Your task to perform on an android device: toggle location history Image 0: 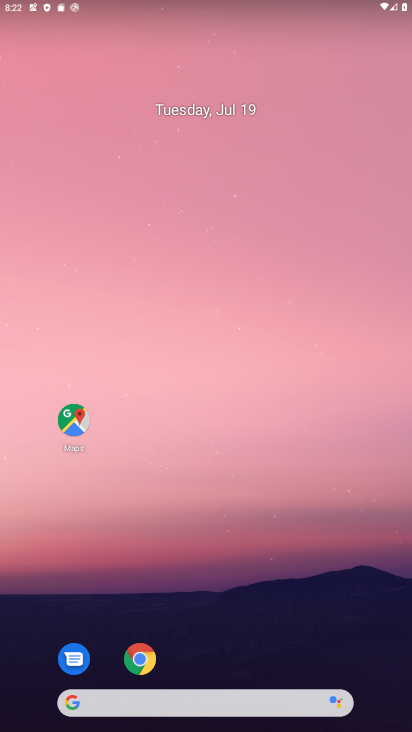
Step 0: drag from (200, 658) to (341, 290)
Your task to perform on an android device: toggle location history Image 1: 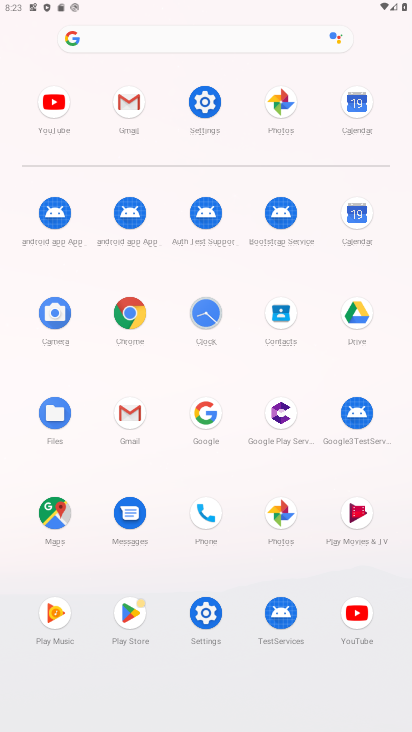
Step 1: click (211, 614)
Your task to perform on an android device: toggle location history Image 2: 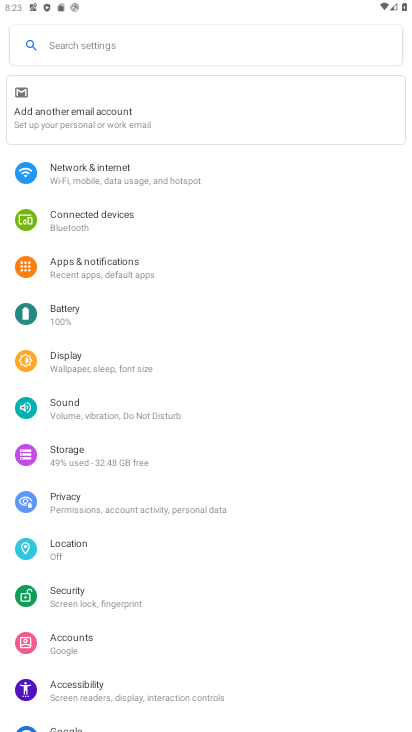
Step 2: click (122, 541)
Your task to perform on an android device: toggle location history Image 3: 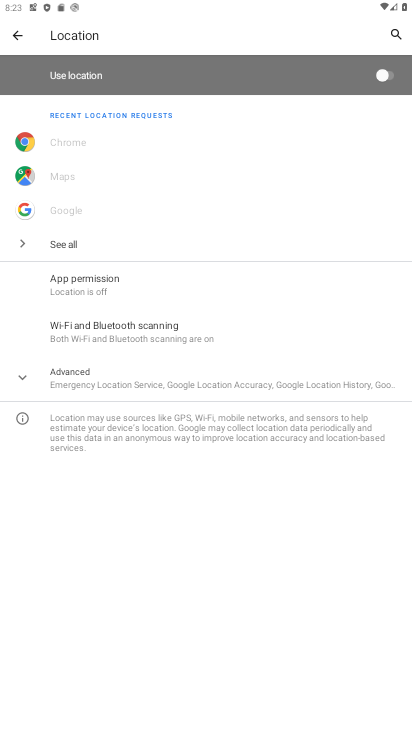
Step 3: click (95, 386)
Your task to perform on an android device: toggle location history Image 4: 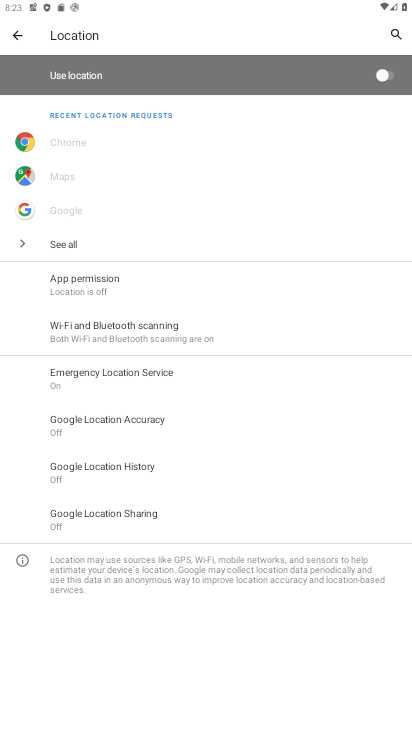
Step 4: click (120, 474)
Your task to perform on an android device: toggle location history Image 5: 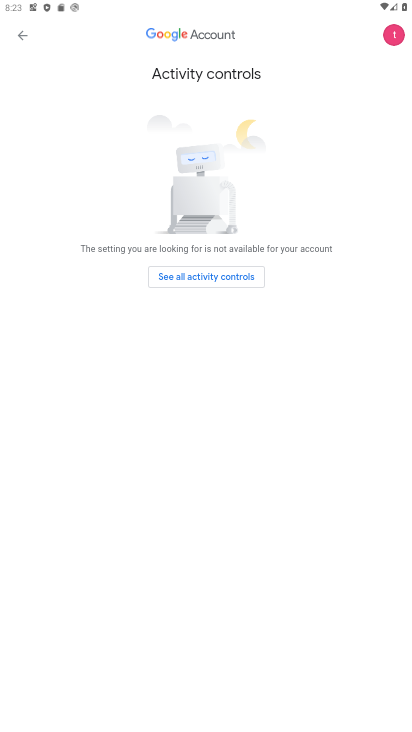
Step 5: click (234, 277)
Your task to perform on an android device: toggle location history Image 6: 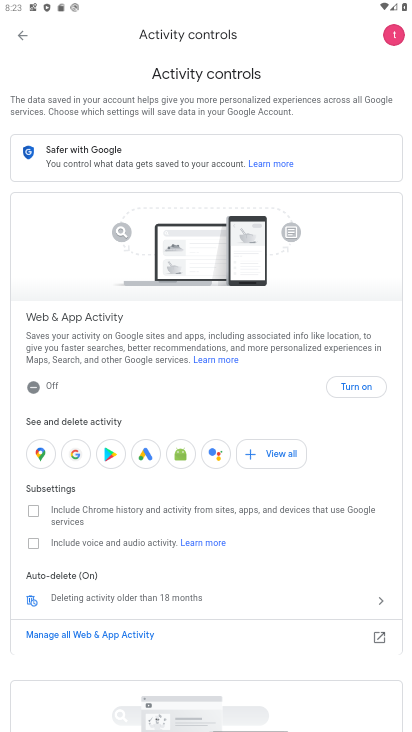
Step 6: click (348, 386)
Your task to perform on an android device: toggle location history Image 7: 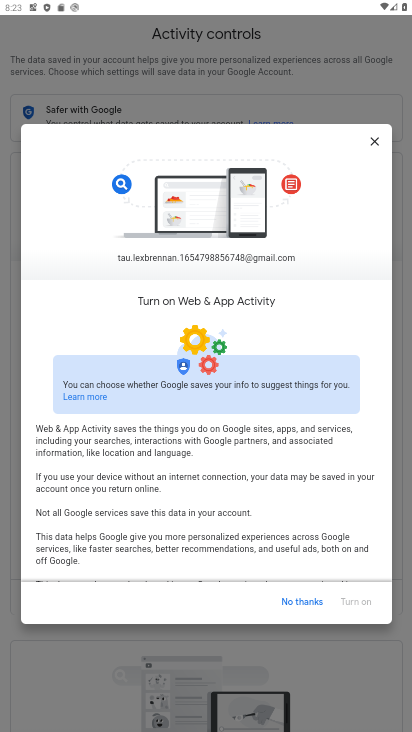
Step 7: drag from (313, 560) to (369, 193)
Your task to perform on an android device: toggle location history Image 8: 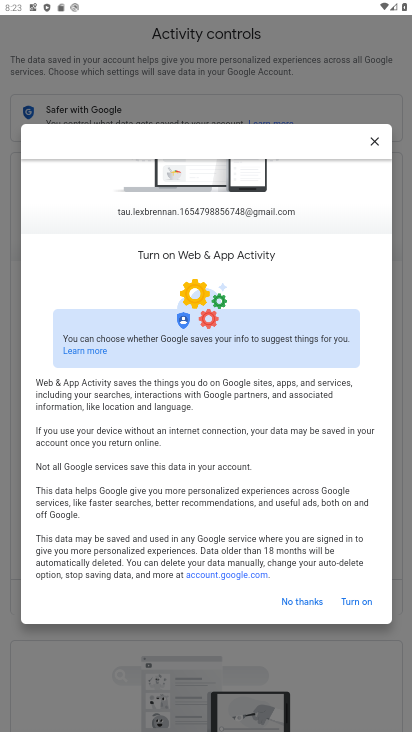
Step 8: click (348, 597)
Your task to perform on an android device: toggle location history Image 9: 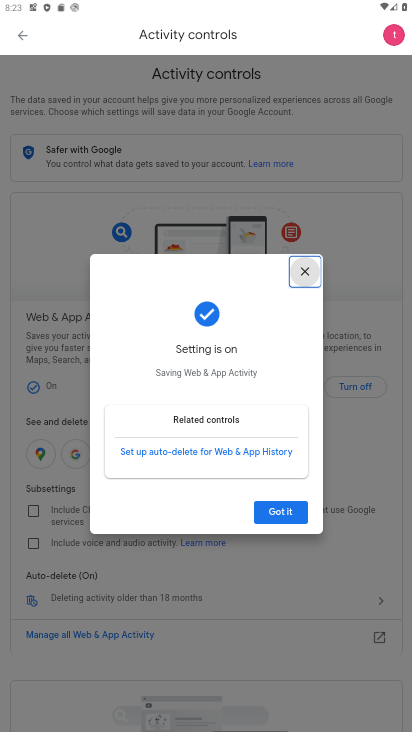
Step 9: click (286, 510)
Your task to perform on an android device: toggle location history Image 10: 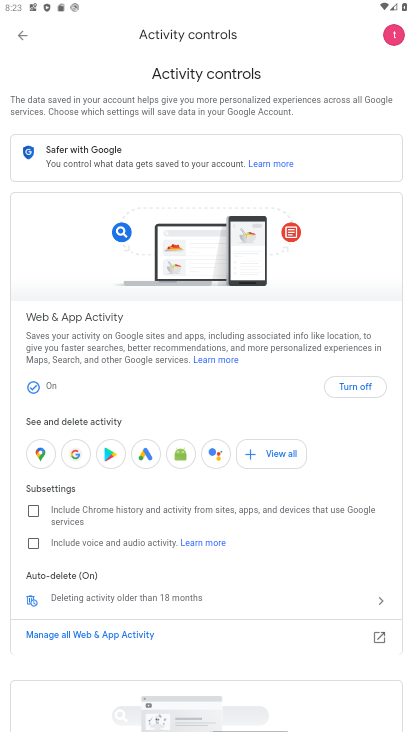
Step 10: task complete